Your task to perform on an android device: open app "Venmo" Image 0: 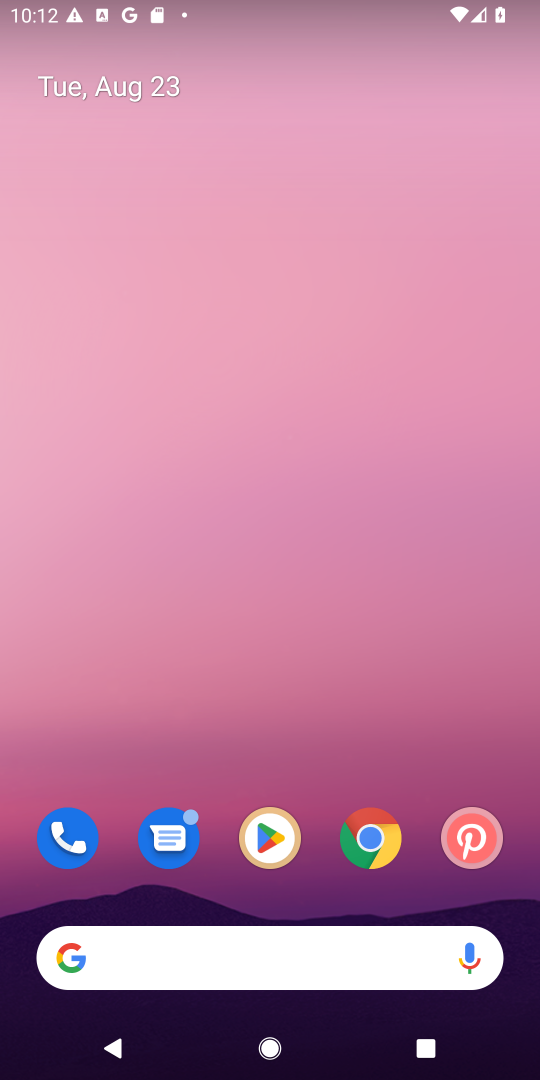
Step 0: click (275, 832)
Your task to perform on an android device: open app "Venmo" Image 1: 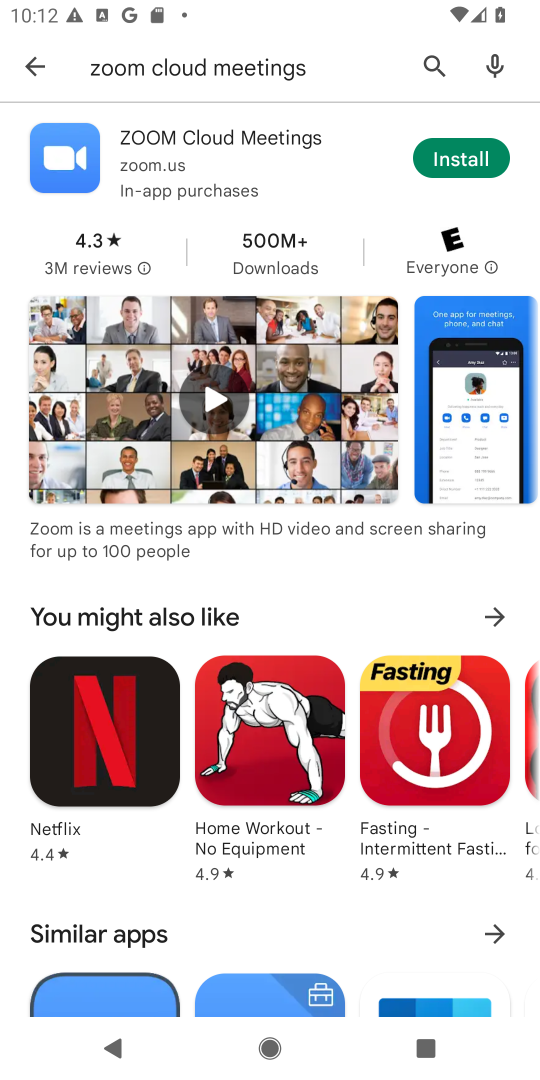
Step 1: click (433, 59)
Your task to perform on an android device: open app "Venmo" Image 2: 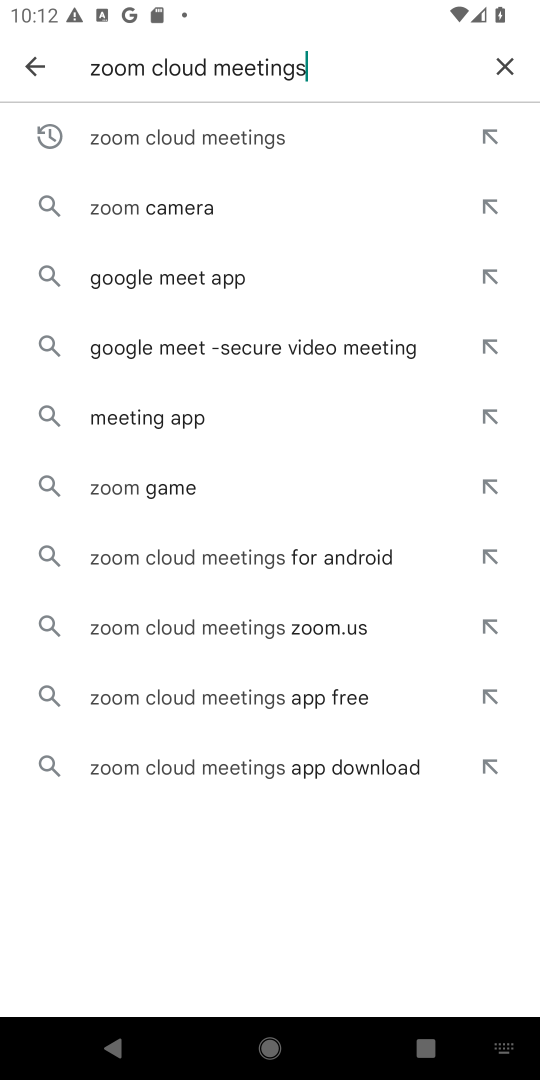
Step 2: click (502, 66)
Your task to perform on an android device: open app "Venmo" Image 3: 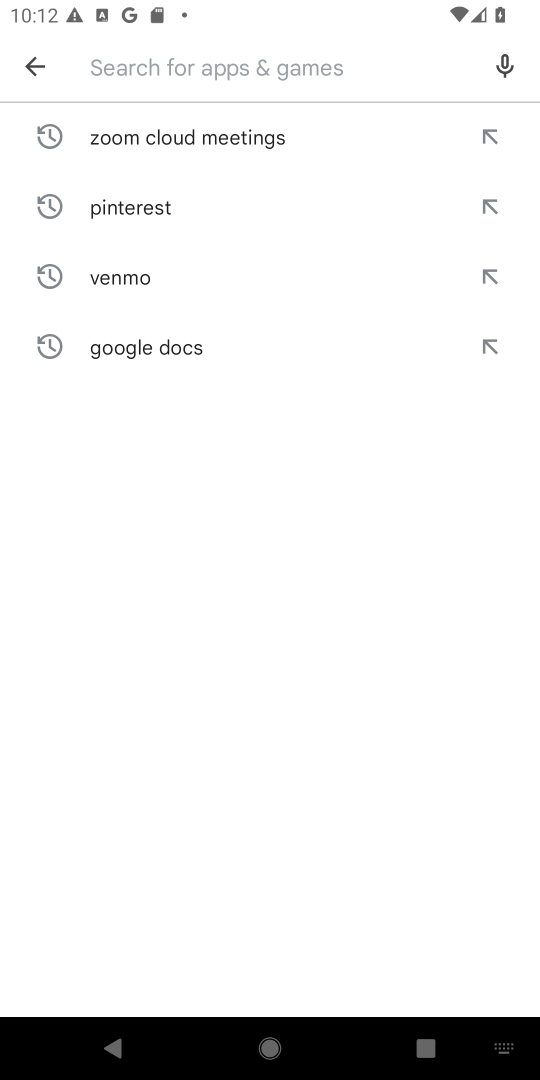
Step 3: type "Venmo"
Your task to perform on an android device: open app "Venmo" Image 4: 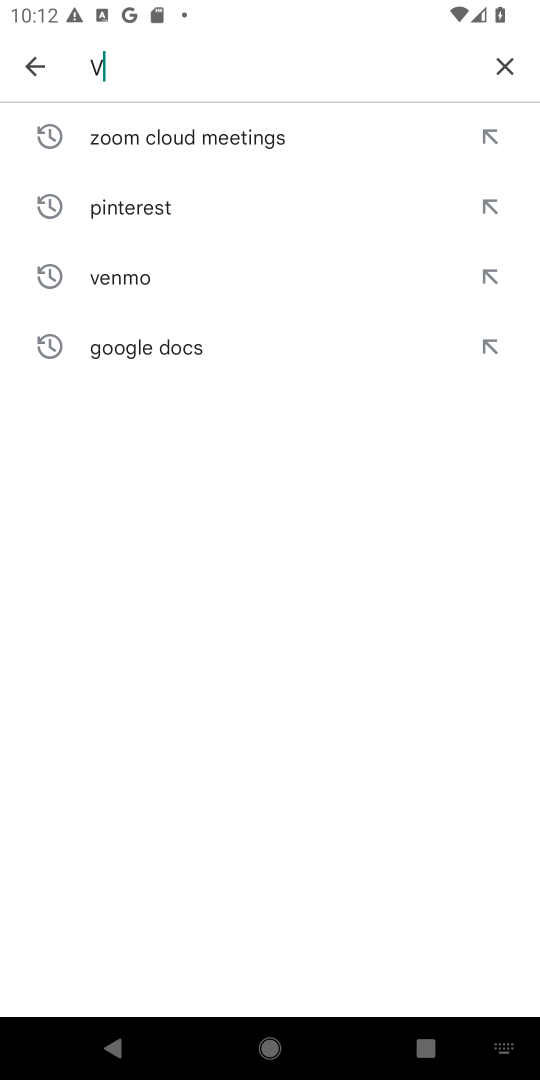
Step 4: type ""
Your task to perform on an android device: open app "Venmo" Image 5: 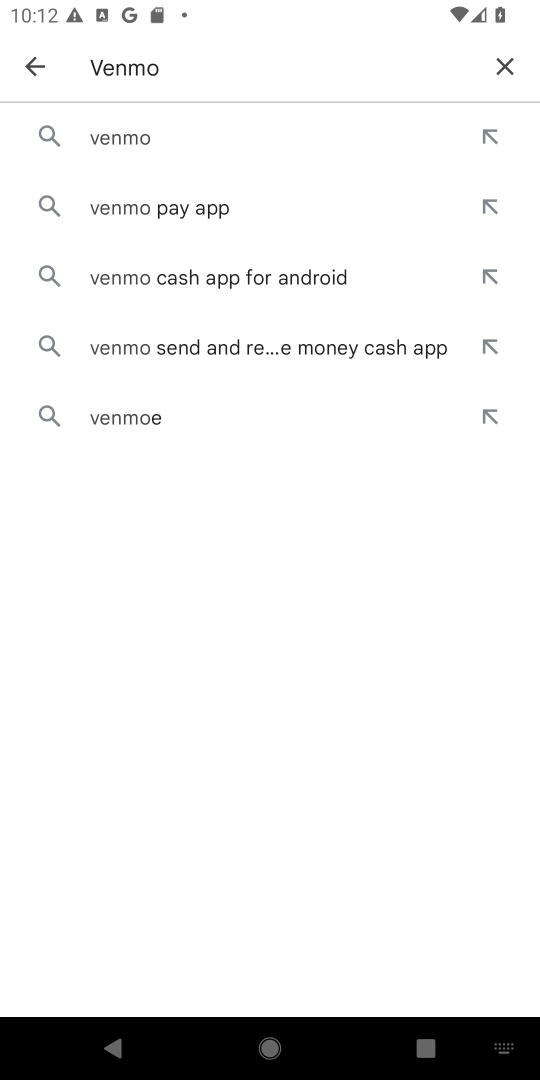
Step 5: click (203, 135)
Your task to perform on an android device: open app "Venmo" Image 6: 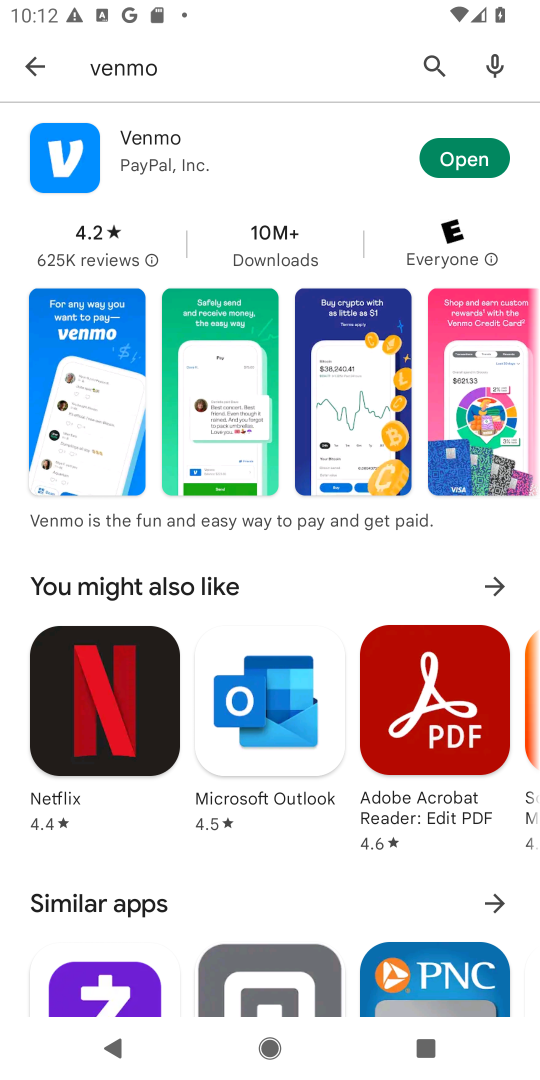
Step 6: click (498, 157)
Your task to perform on an android device: open app "Venmo" Image 7: 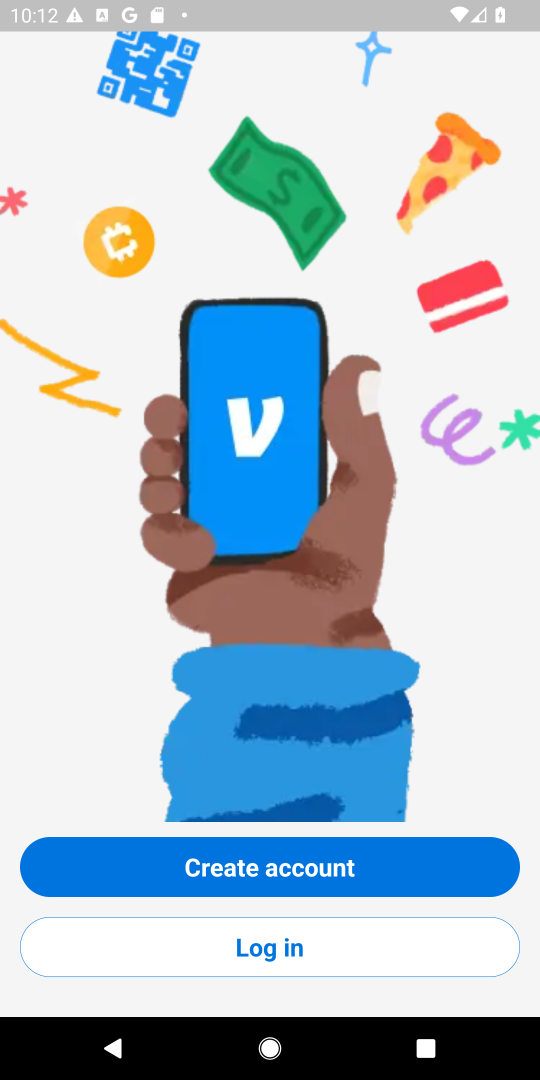
Step 7: task complete